Your task to perform on an android device: turn off wifi Image 0: 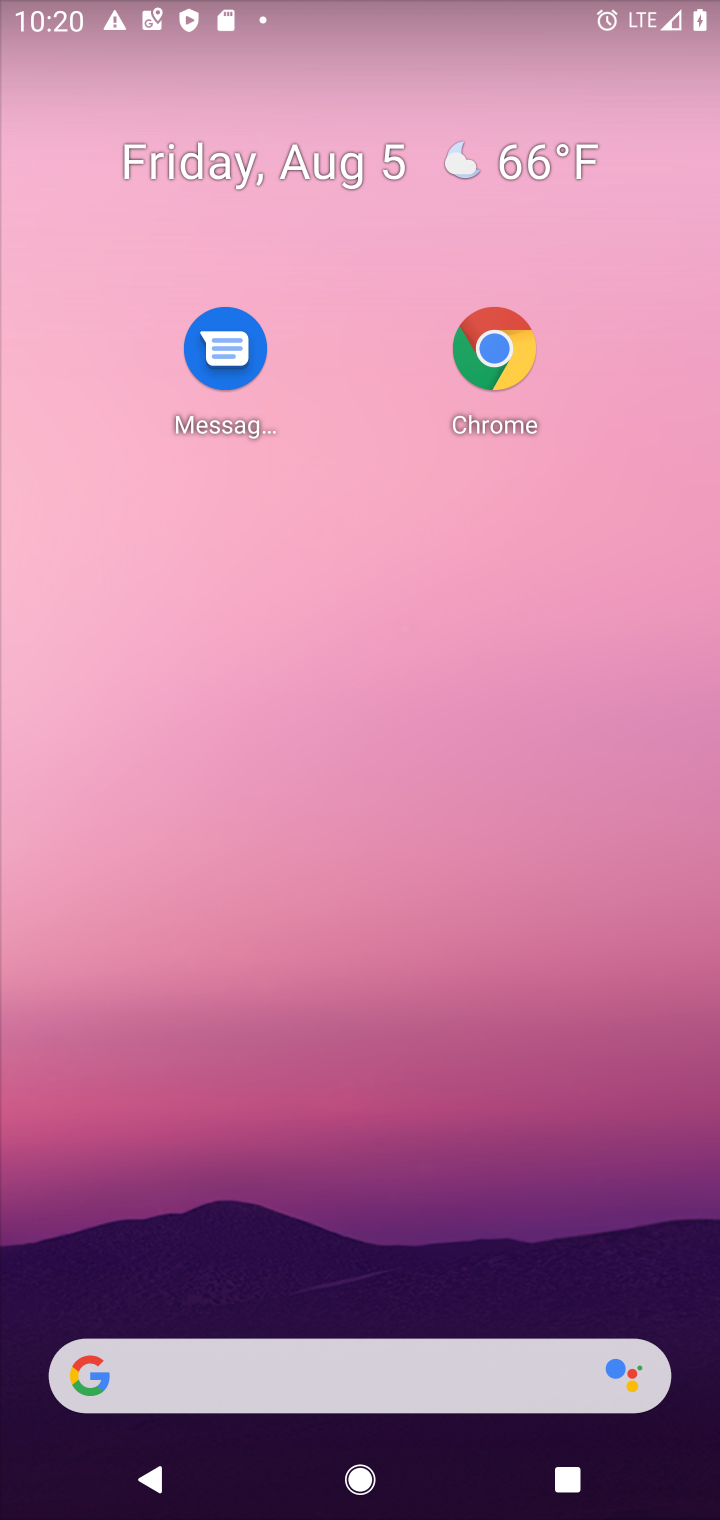
Step 0: press home button
Your task to perform on an android device: turn off wifi Image 1: 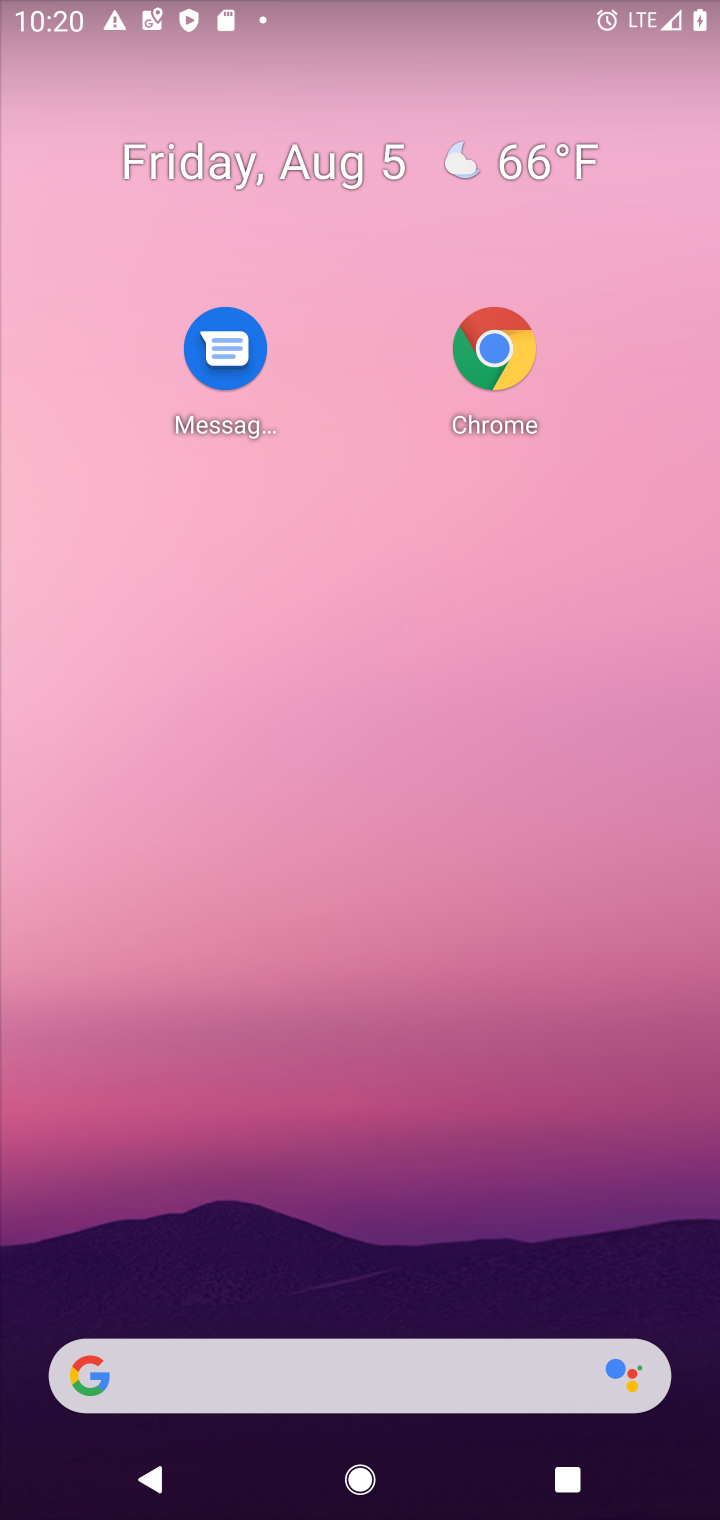
Step 1: drag from (412, 1381) to (204, 501)
Your task to perform on an android device: turn off wifi Image 2: 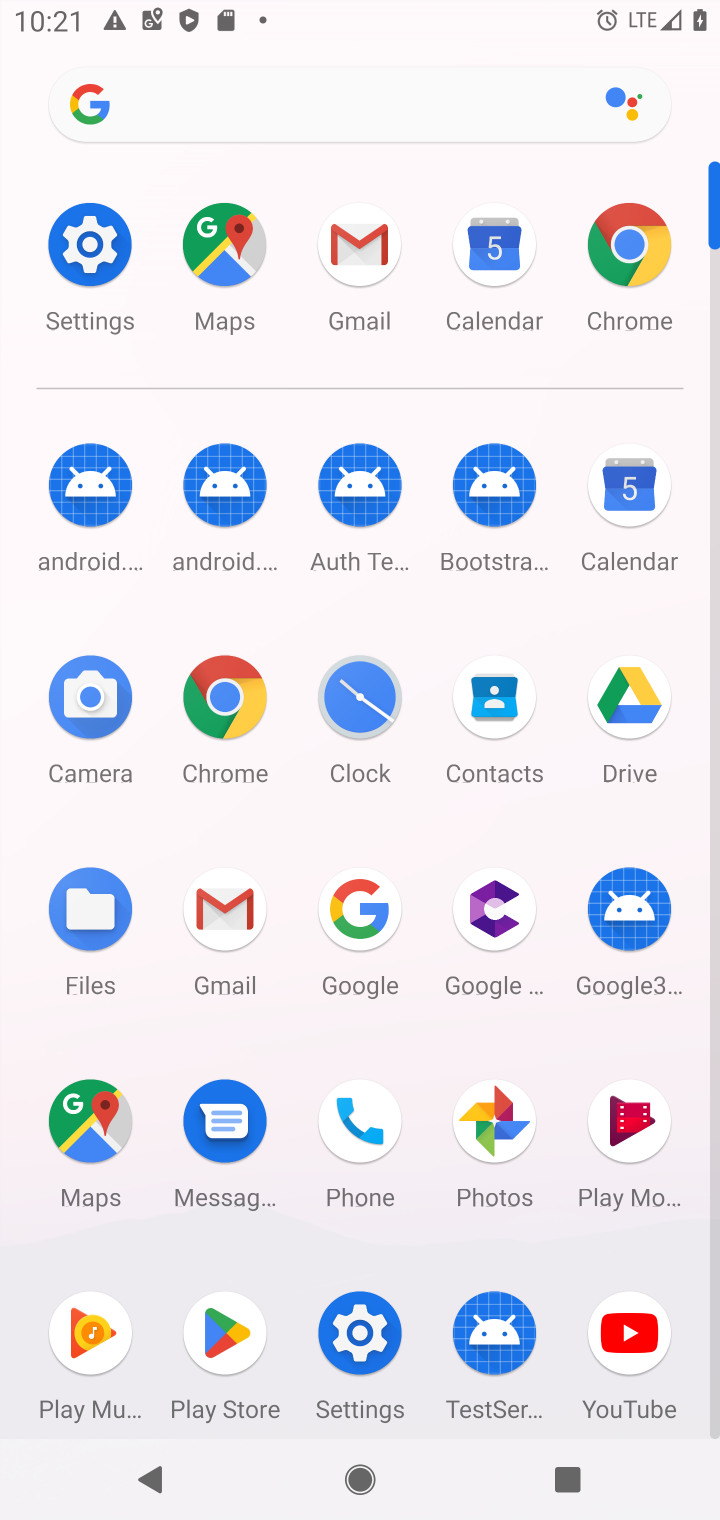
Step 2: click (90, 230)
Your task to perform on an android device: turn off wifi Image 3: 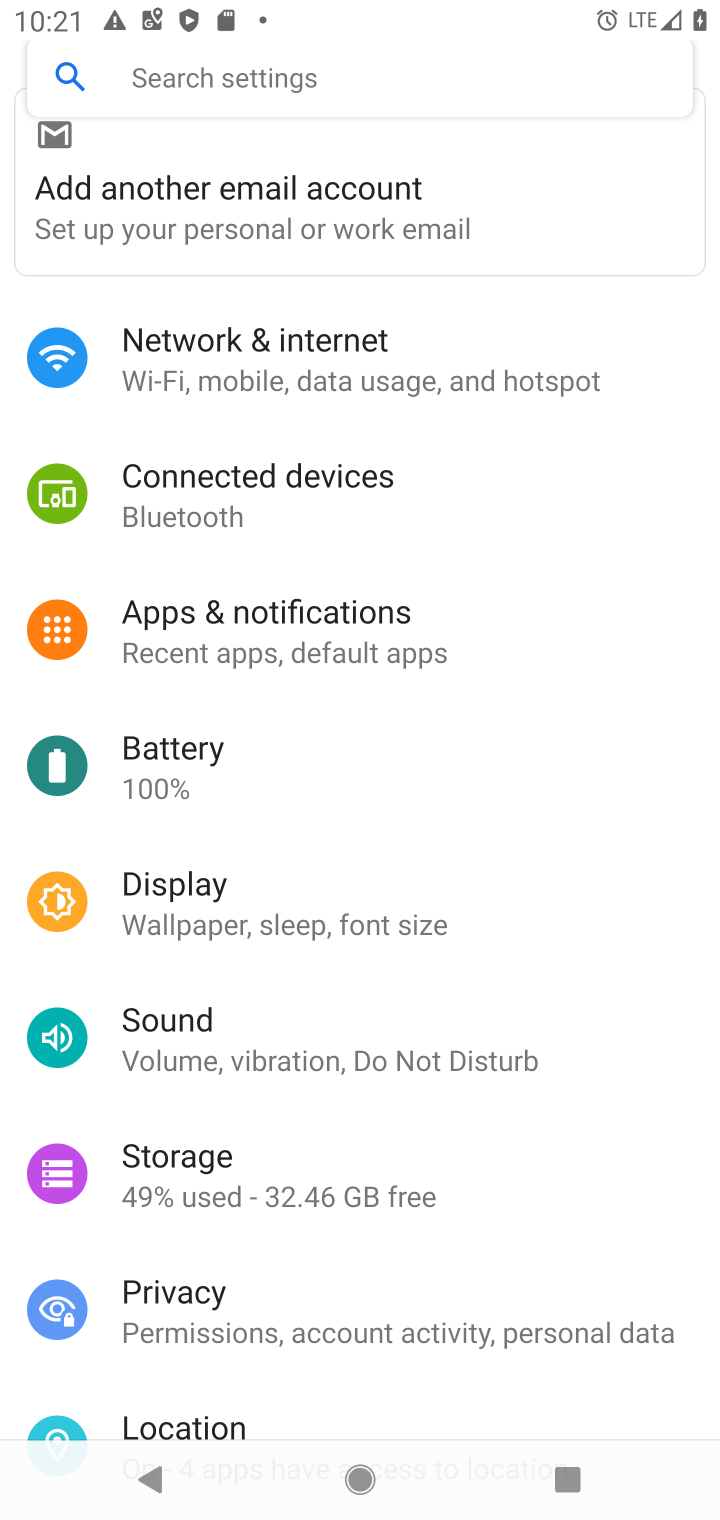
Step 3: click (233, 348)
Your task to perform on an android device: turn off wifi Image 4: 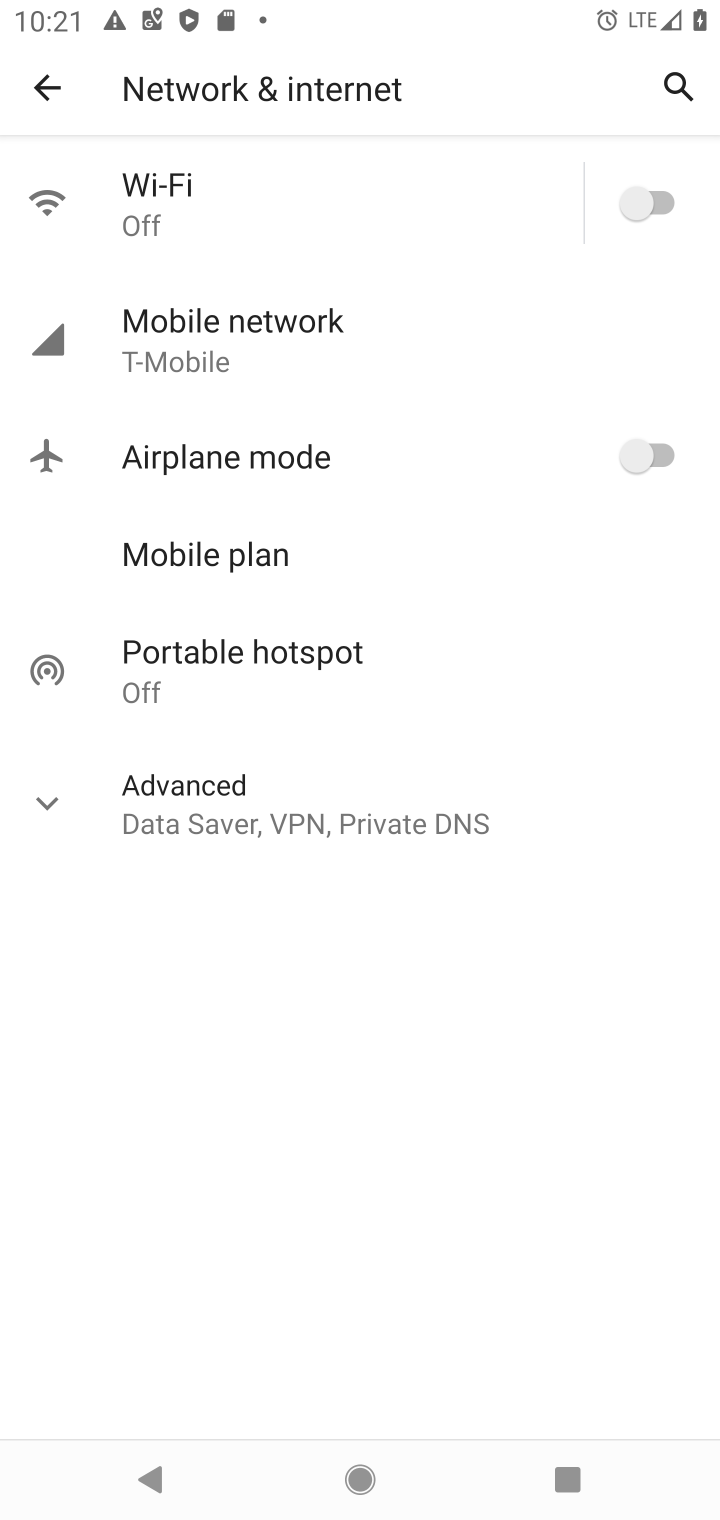
Step 4: click (235, 193)
Your task to perform on an android device: turn off wifi Image 5: 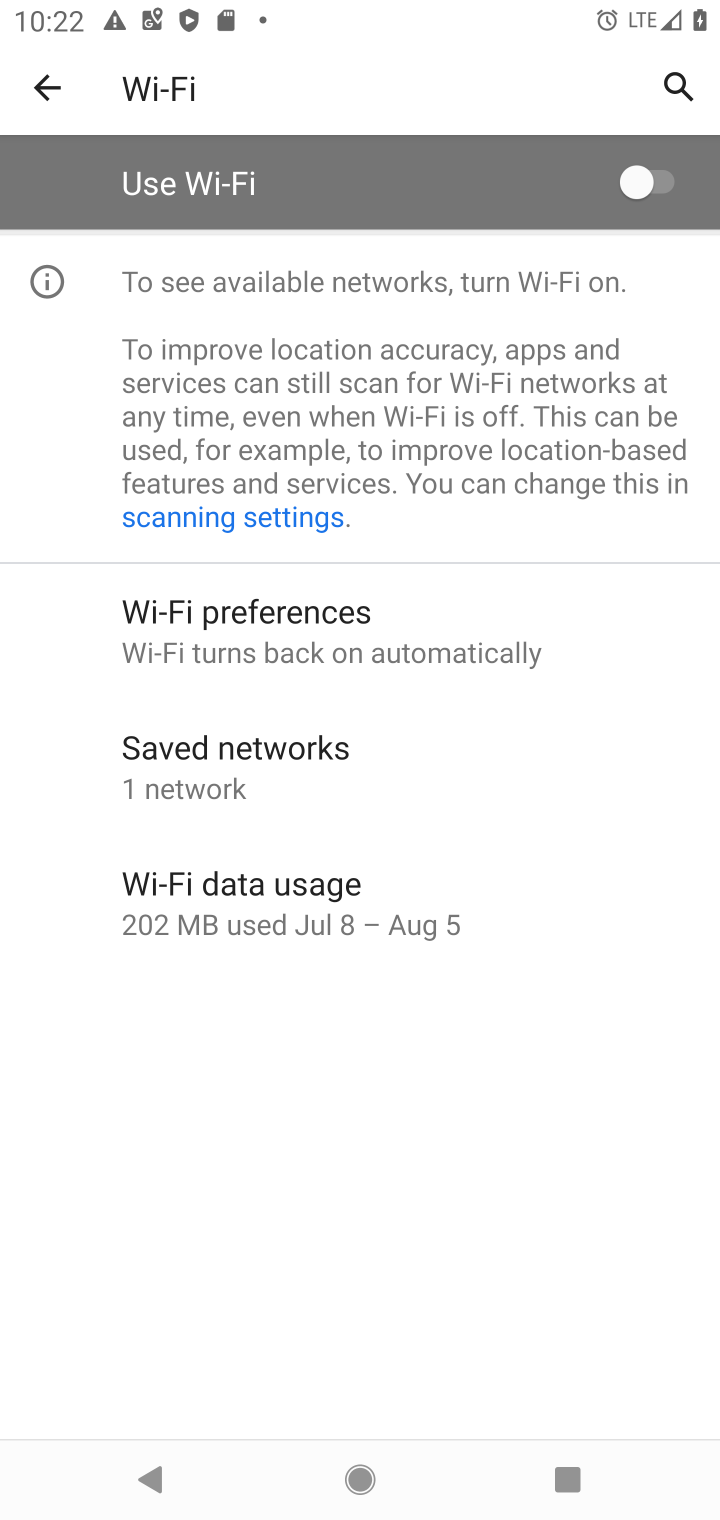
Step 5: task complete